Your task to perform on an android device: turn pop-ups on in chrome Image 0: 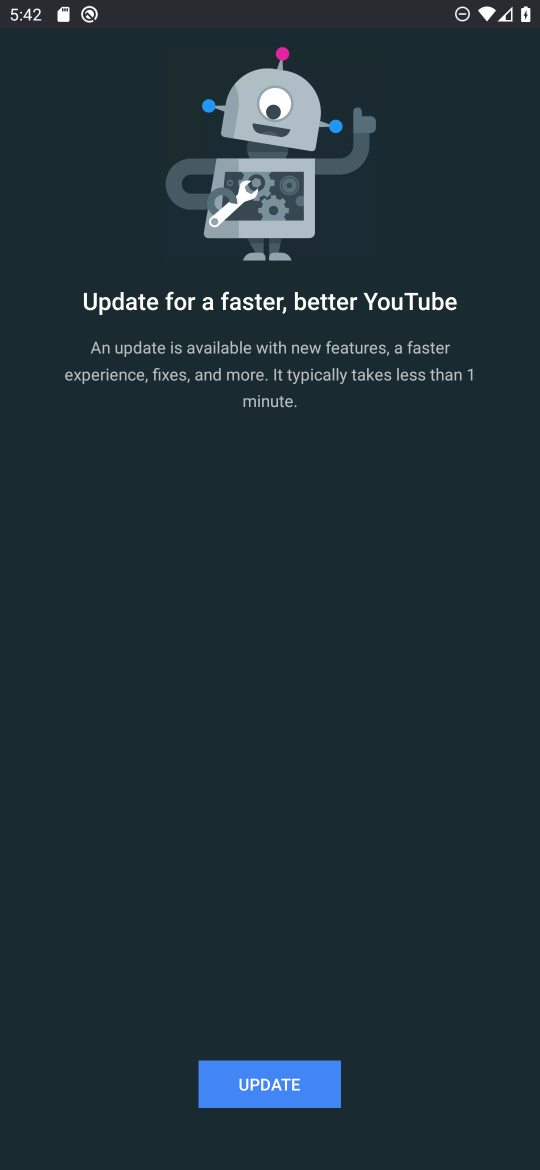
Step 0: press back button
Your task to perform on an android device: turn pop-ups on in chrome Image 1: 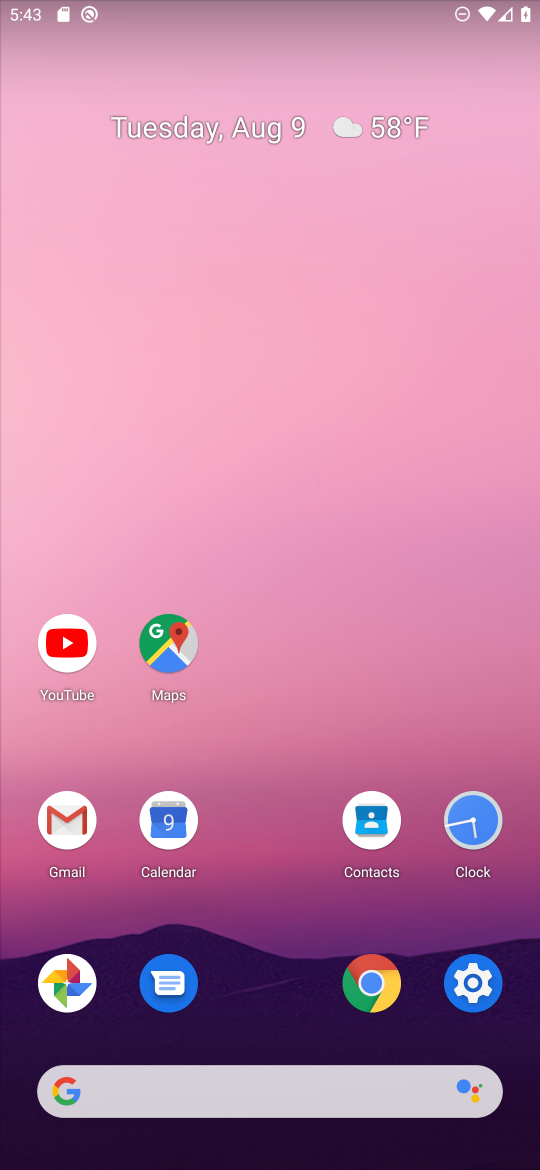
Step 1: click (377, 982)
Your task to perform on an android device: turn pop-ups on in chrome Image 2: 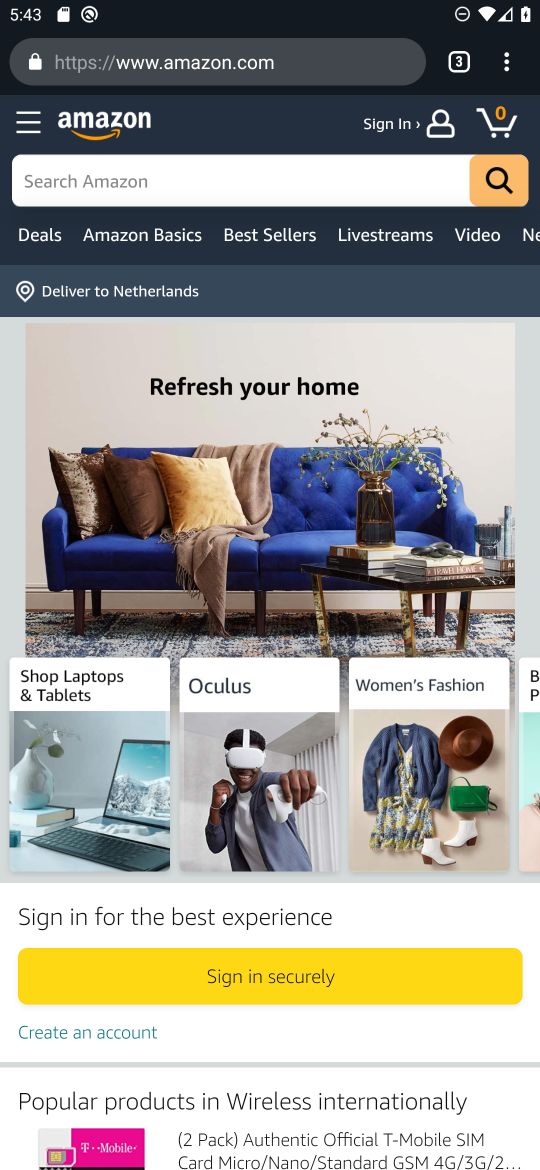
Step 2: click (501, 57)
Your task to perform on an android device: turn pop-ups on in chrome Image 3: 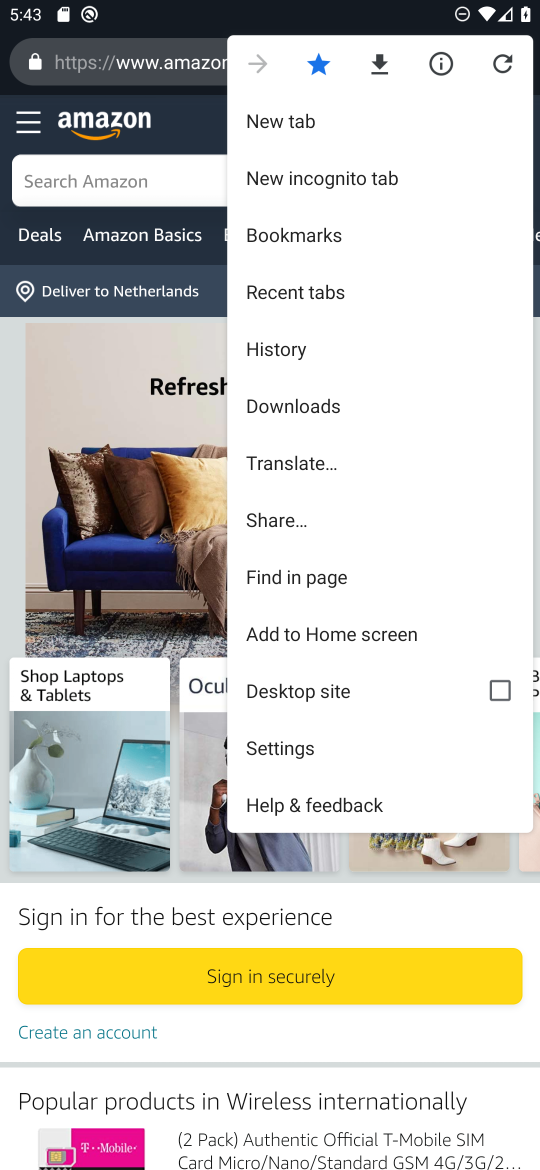
Step 3: click (302, 737)
Your task to perform on an android device: turn pop-ups on in chrome Image 4: 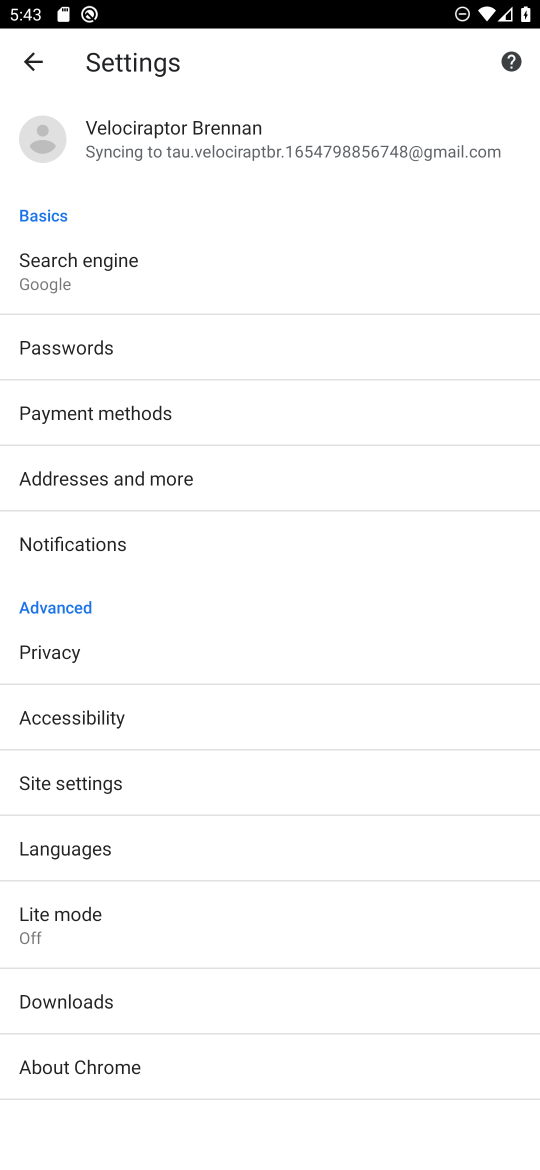
Step 4: click (68, 781)
Your task to perform on an android device: turn pop-ups on in chrome Image 5: 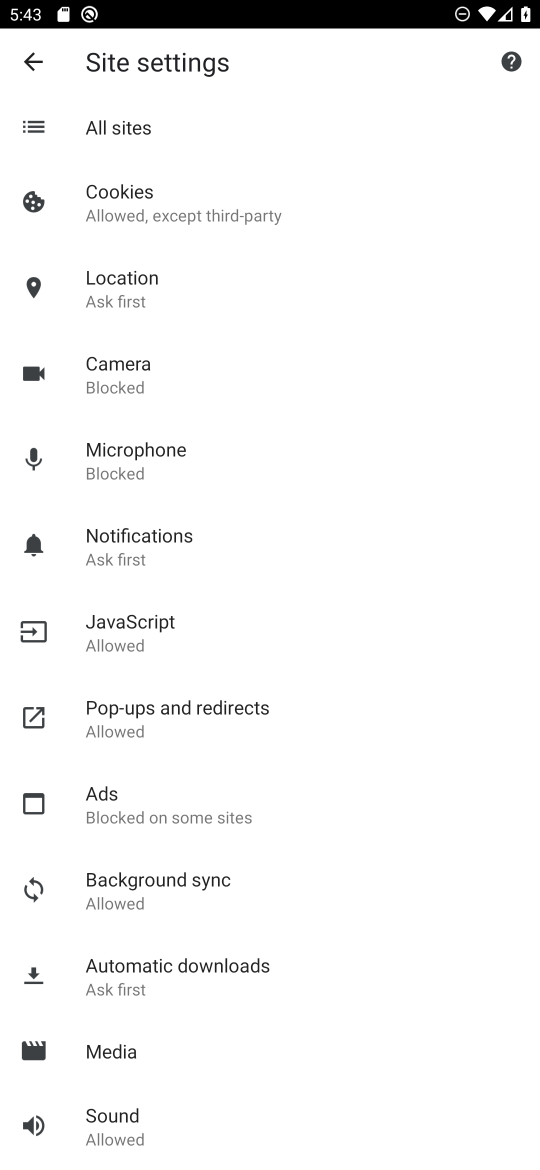
Step 5: click (149, 712)
Your task to perform on an android device: turn pop-ups on in chrome Image 6: 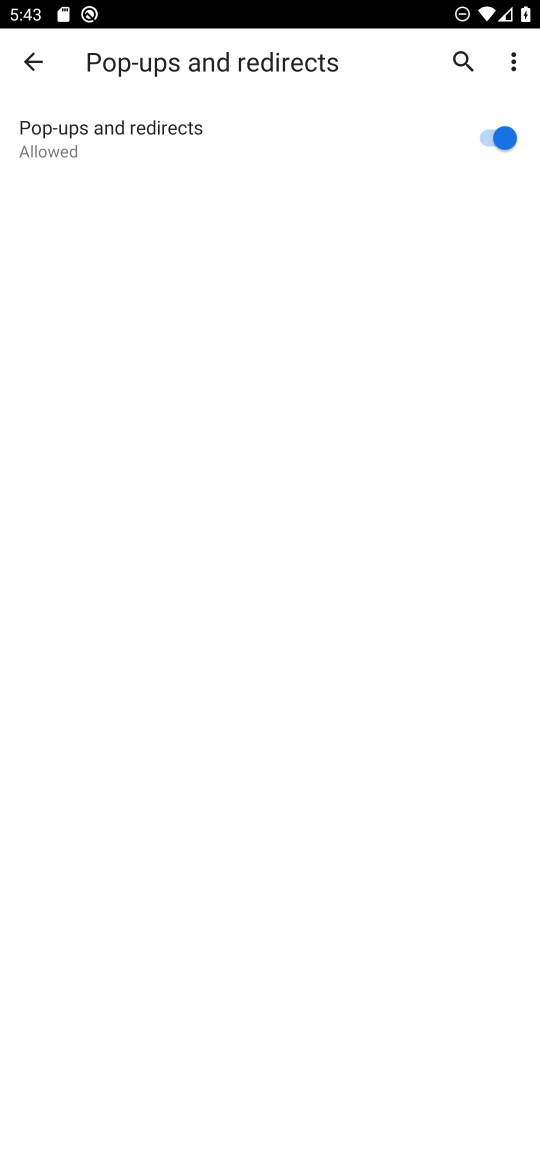
Step 6: task complete